Your task to perform on an android device: Open accessibility settings Image 0: 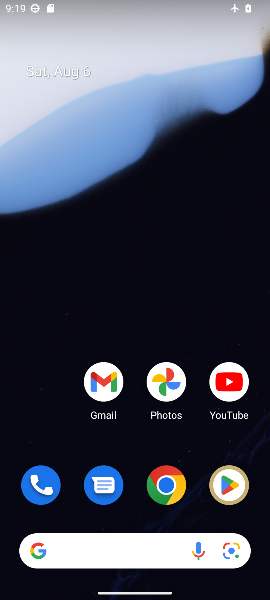
Step 0: drag from (131, 434) to (184, 14)
Your task to perform on an android device: Open accessibility settings Image 1: 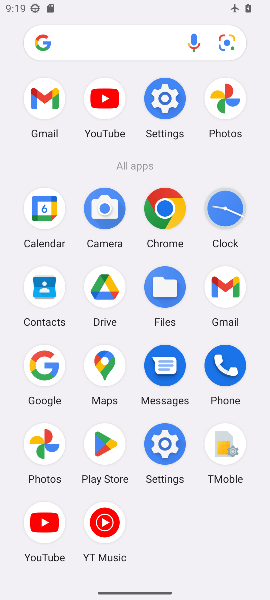
Step 1: click (161, 445)
Your task to perform on an android device: Open accessibility settings Image 2: 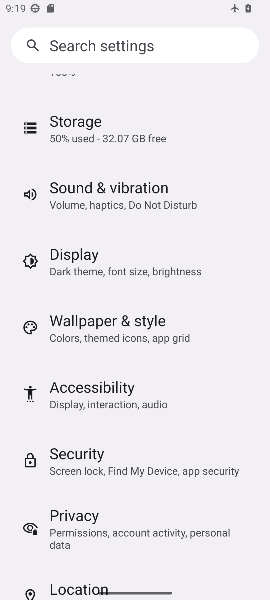
Step 2: click (91, 392)
Your task to perform on an android device: Open accessibility settings Image 3: 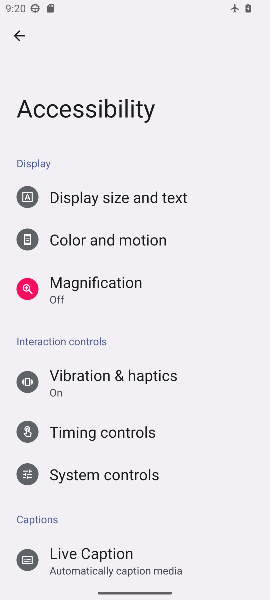
Step 3: task complete